Your task to perform on an android device: manage bookmarks in the chrome app Image 0: 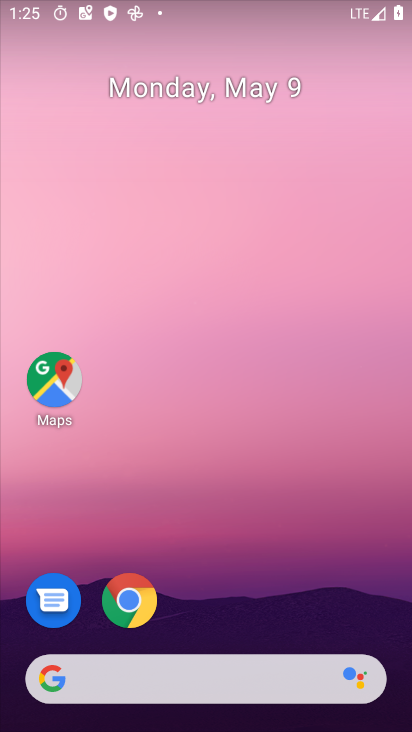
Step 0: drag from (215, 651) to (224, 359)
Your task to perform on an android device: manage bookmarks in the chrome app Image 1: 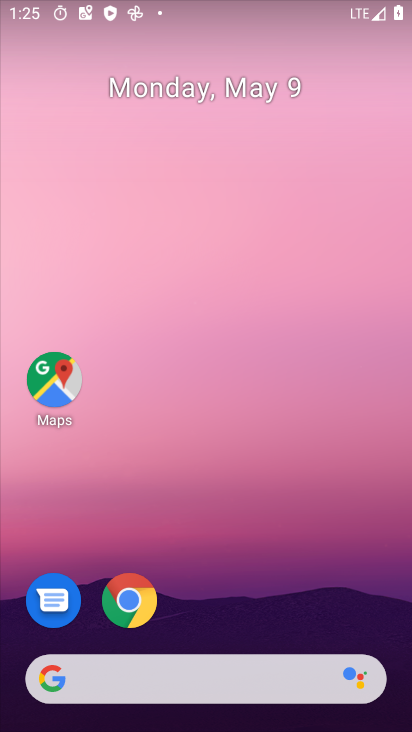
Step 1: drag from (209, 601) to (198, 253)
Your task to perform on an android device: manage bookmarks in the chrome app Image 2: 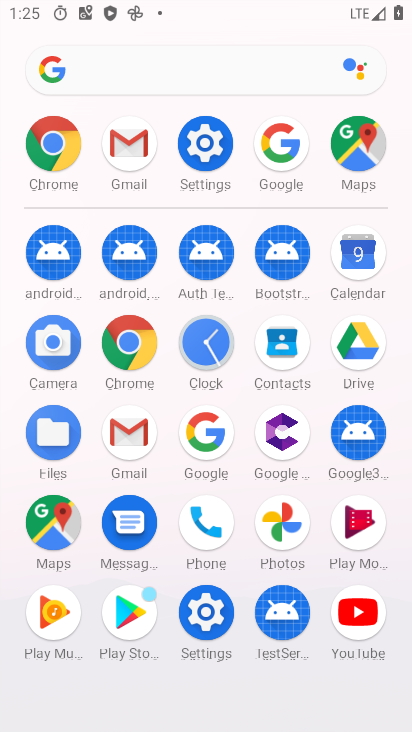
Step 2: click (134, 351)
Your task to perform on an android device: manage bookmarks in the chrome app Image 3: 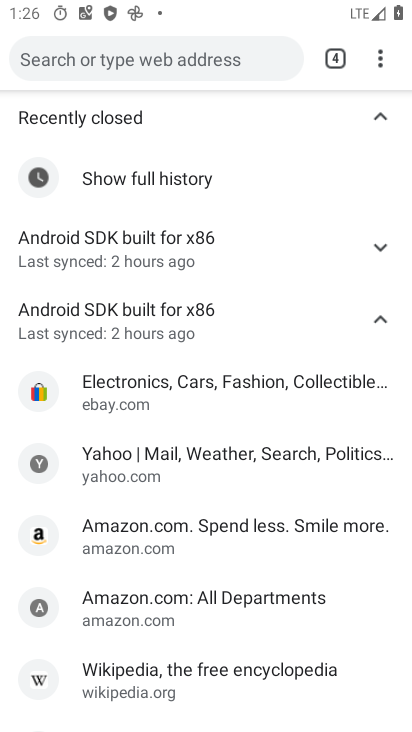
Step 3: click (384, 56)
Your task to perform on an android device: manage bookmarks in the chrome app Image 4: 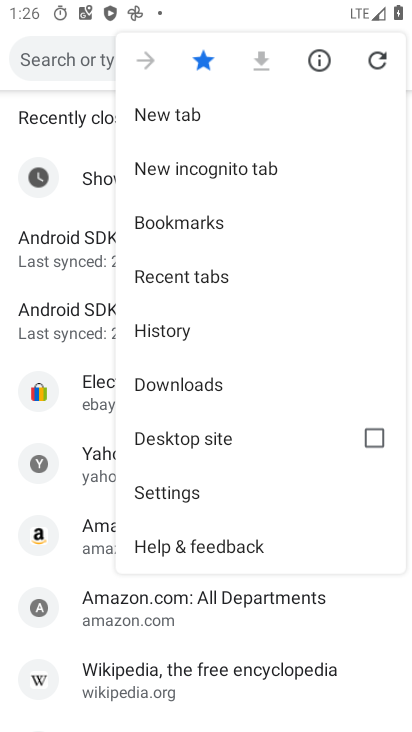
Step 4: click (238, 226)
Your task to perform on an android device: manage bookmarks in the chrome app Image 5: 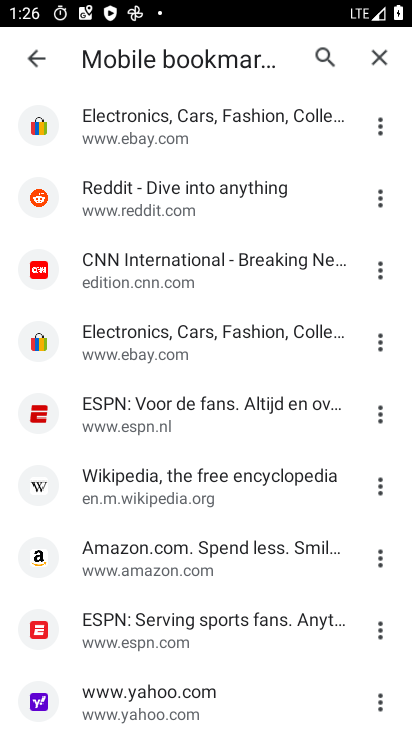
Step 5: click (389, 139)
Your task to perform on an android device: manage bookmarks in the chrome app Image 6: 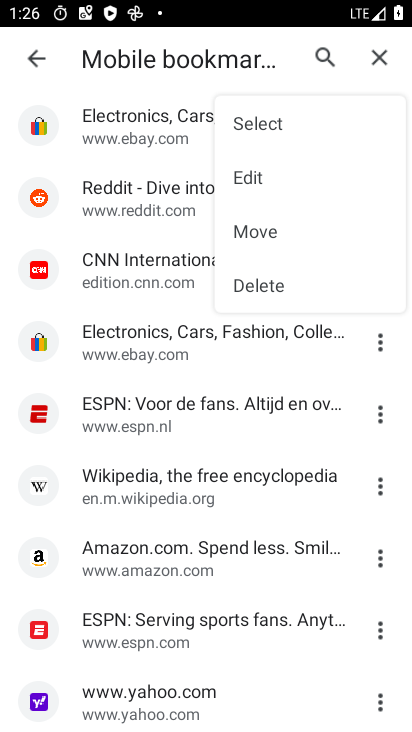
Step 6: click (274, 188)
Your task to perform on an android device: manage bookmarks in the chrome app Image 7: 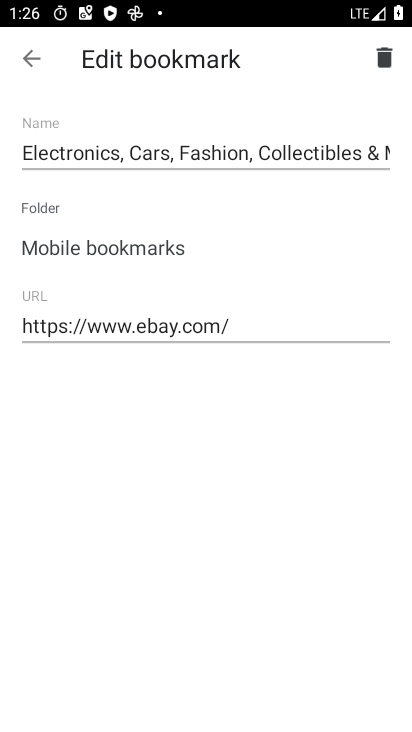
Step 7: click (141, 155)
Your task to perform on an android device: manage bookmarks in the chrome app Image 8: 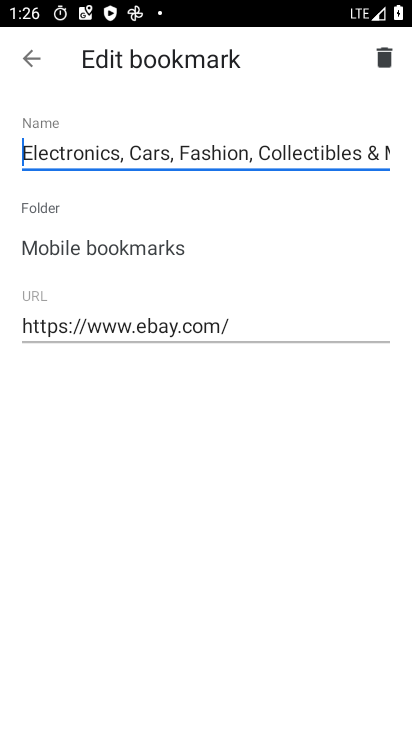
Step 8: click (141, 155)
Your task to perform on an android device: manage bookmarks in the chrome app Image 9: 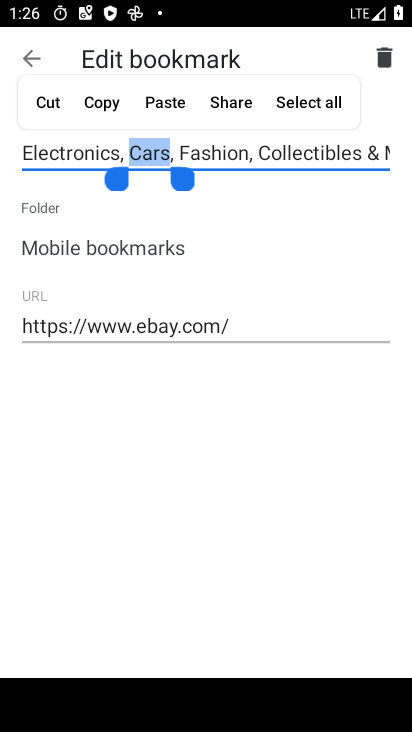
Step 9: click (46, 104)
Your task to perform on an android device: manage bookmarks in the chrome app Image 10: 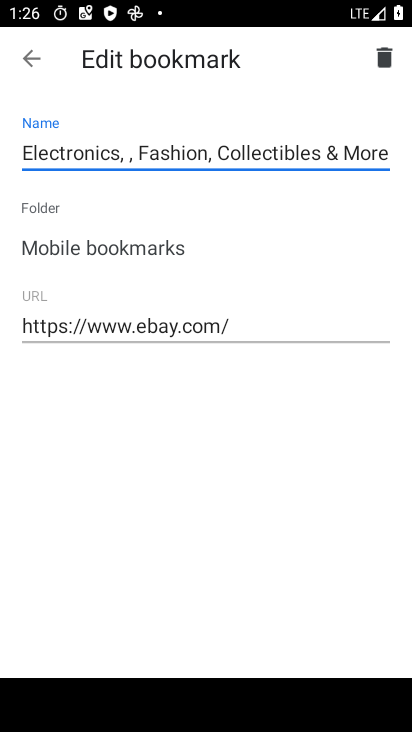
Step 10: task complete